Your task to perform on an android device: Open maps Image 0: 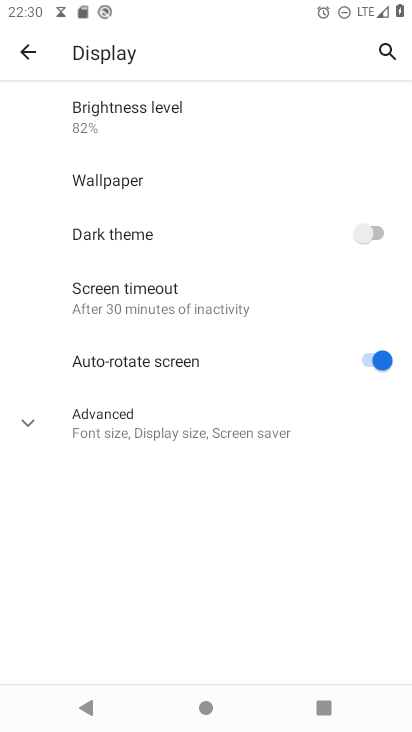
Step 0: press home button
Your task to perform on an android device: Open maps Image 1: 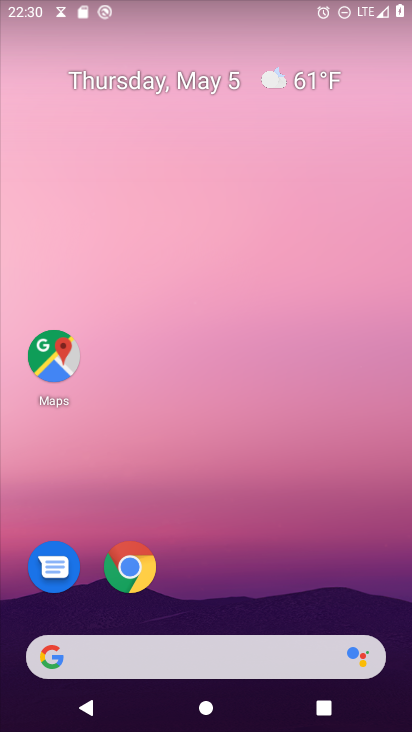
Step 1: drag from (220, 728) to (210, 161)
Your task to perform on an android device: Open maps Image 2: 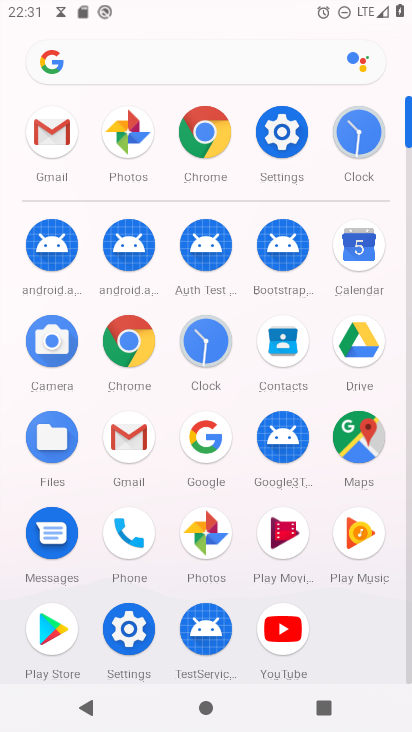
Step 2: click (356, 432)
Your task to perform on an android device: Open maps Image 3: 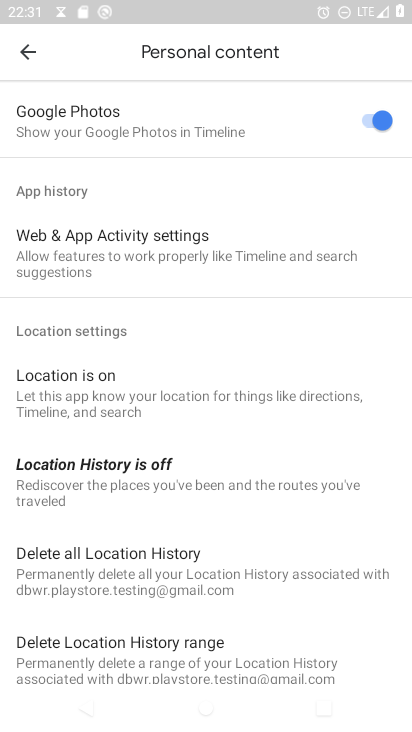
Step 3: click (31, 53)
Your task to perform on an android device: Open maps Image 4: 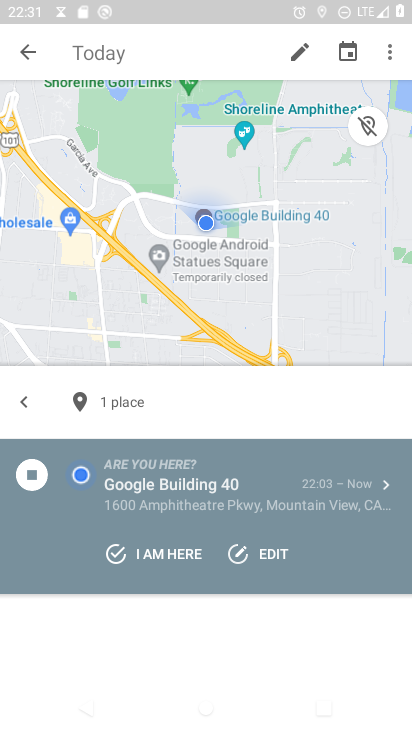
Step 4: click (26, 52)
Your task to perform on an android device: Open maps Image 5: 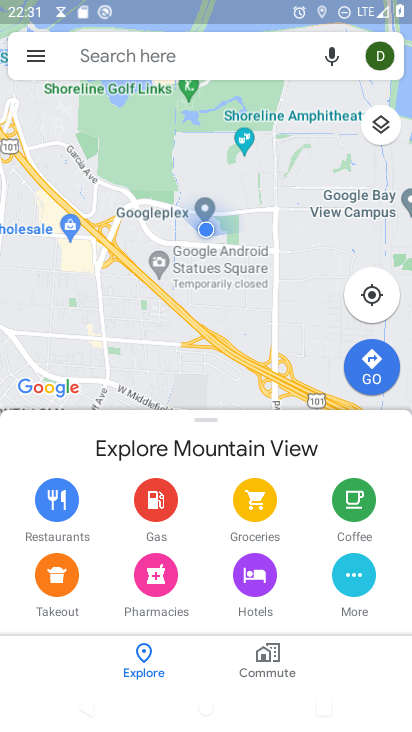
Step 5: task complete